Your task to perform on an android device: What is the recent news? Image 0: 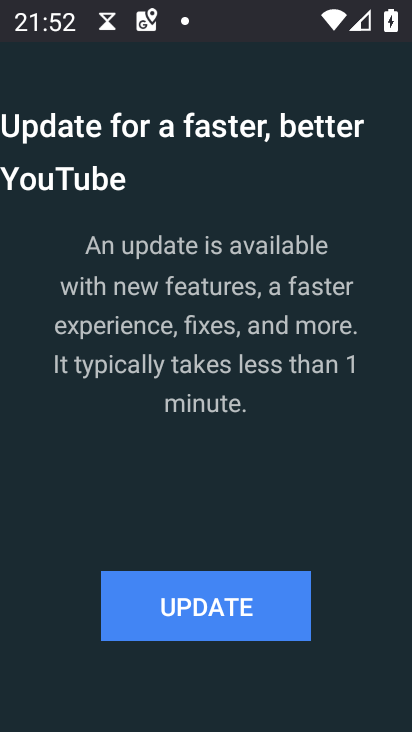
Step 0: press back button
Your task to perform on an android device: What is the recent news? Image 1: 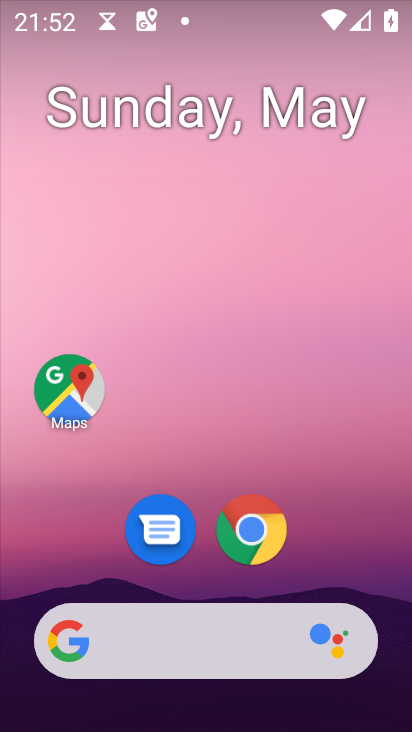
Step 1: click (181, 645)
Your task to perform on an android device: What is the recent news? Image 2: 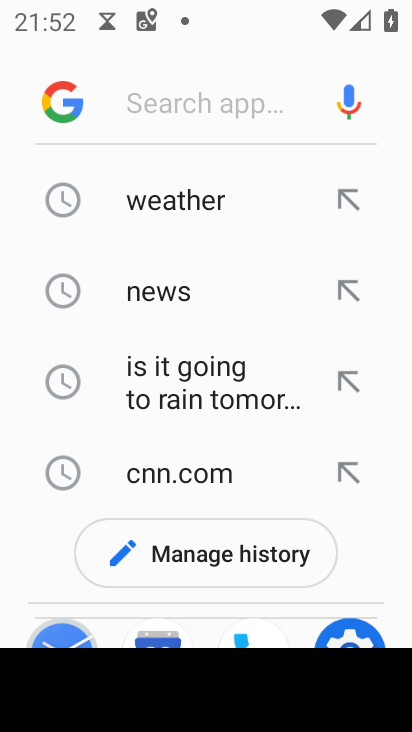
Step 2: type "what is the recent news"
Your task to perform on an android device: What is the recent news? Image 3: 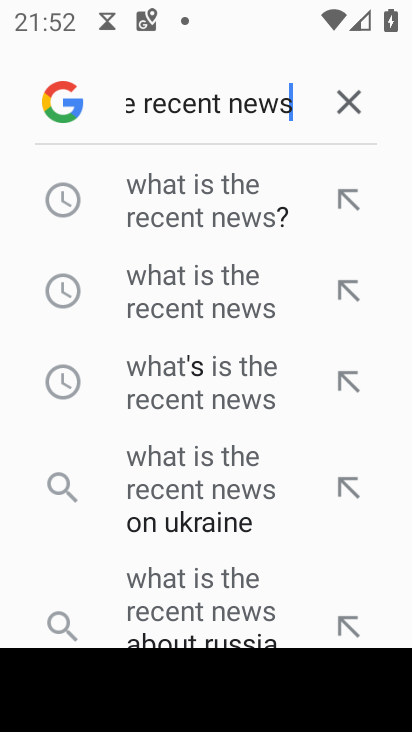
Step 3: click (183, 181)
Your task to perform on an android device: What is the recent news? Image 4: 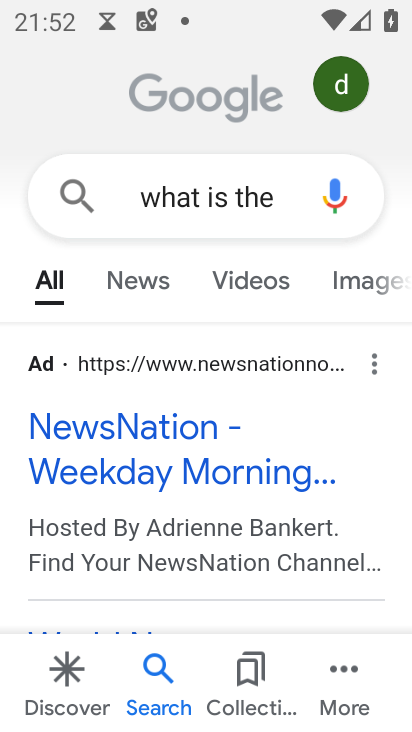
Step 4: click (145, 278)
Your task to perform on an android device: What is the recent news? Image 5: 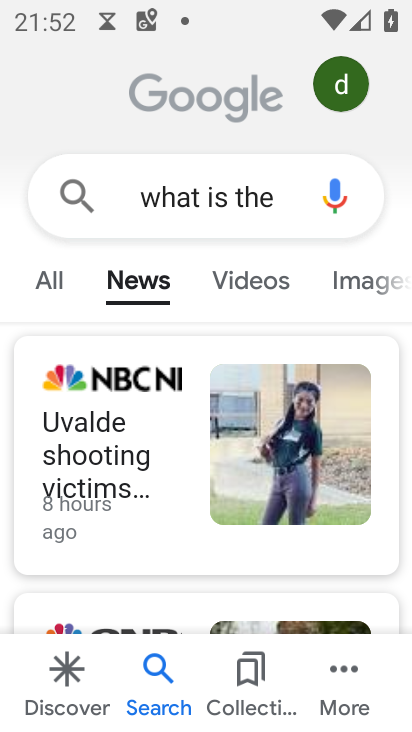
Step 5: task complete